Your task to perform on an android device: toggle show notifications on the lock screen Image 0: 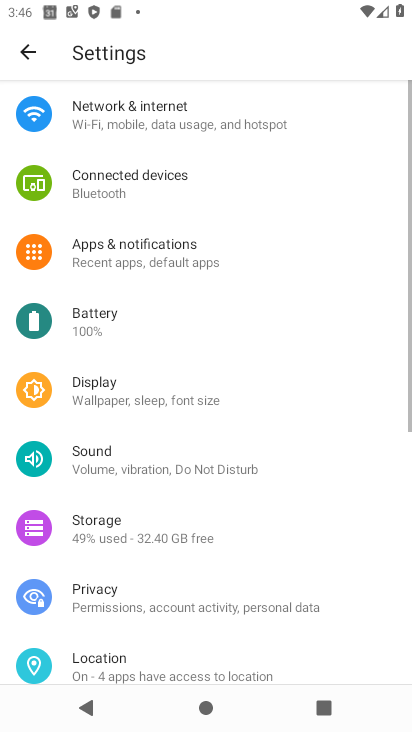
Step 0: press home button
Your task to perform on an android device: toggle show notifications on the lock screen Image 1: 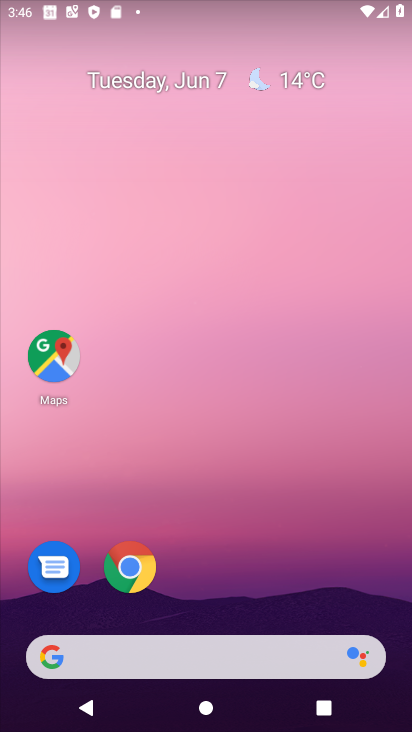
Step 1: drag from (199, 585) to (213, 202)
Your task to perform on an android device: toggle show notifications on the lock screen Image 2: 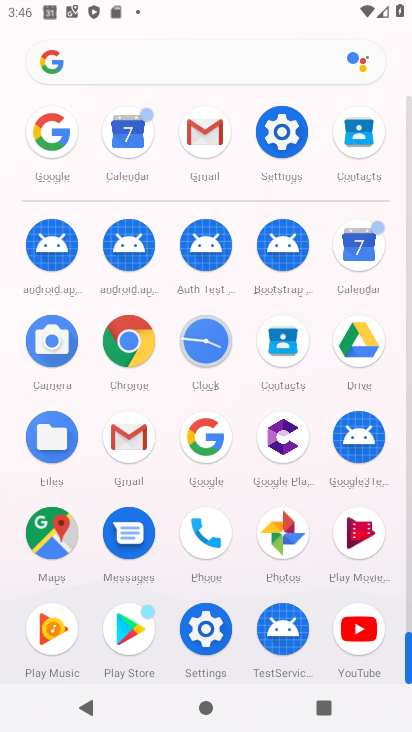
Step 2: click (289, 120)
Your task to perform on an android device: toggle show notifications on the lock screen Image 3: 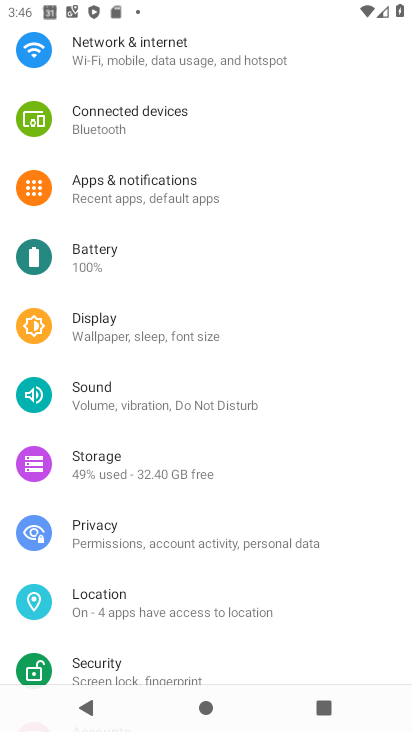
Step 3: click (189, 201)
Your task to perform on an android device: toggle show notifications on the lock screen Image 4: 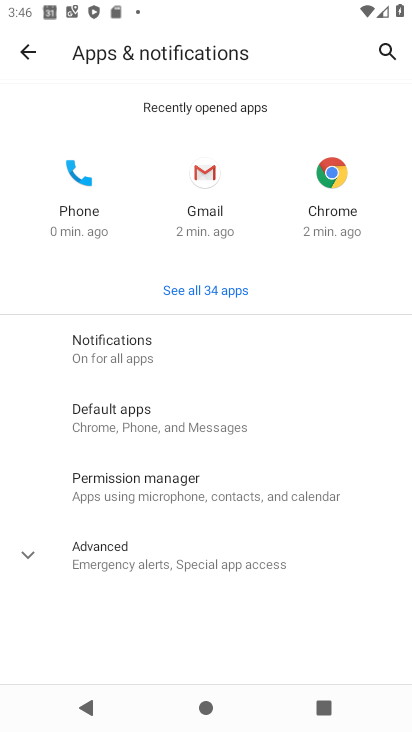
Step 4: click (167, 339)
Your task to perform on an android device: toggle show notifications on the lock screen Image 5: 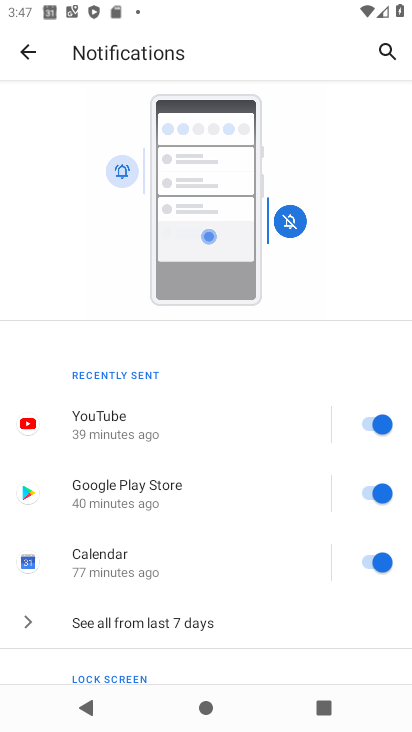
Step 5: drag from (197, 640) to (205, 368)
Your task to perform on an android device: toggle show notifications on the lock screen Image 6: 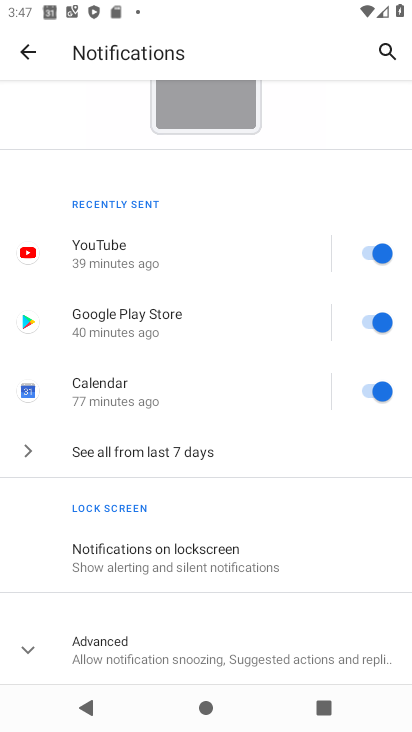
Step 6: click (184, 568)
Your task to perform on an android device: toggle show notifications on the lock screen Image 7: 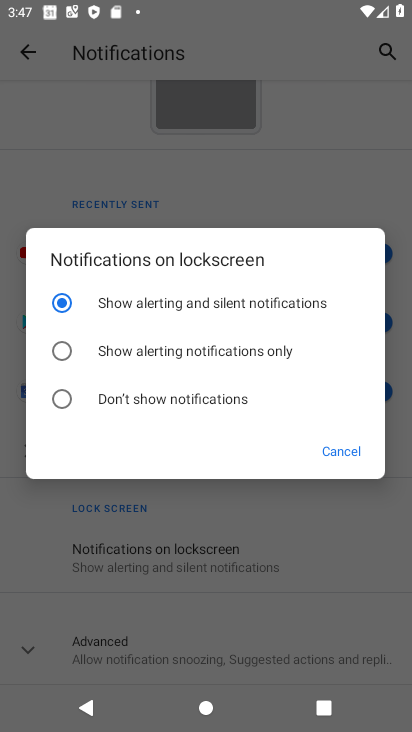
Step 7: click (163, 408)
Your task to perform on an android device: toggle show notifications on the lock screen Image 8: 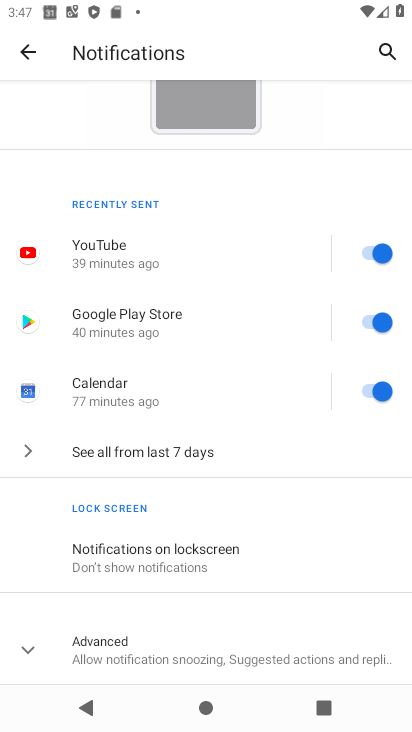
Step 8: task complete